Your task to perform on an android device: set default search engine in the chrome app Image 0: 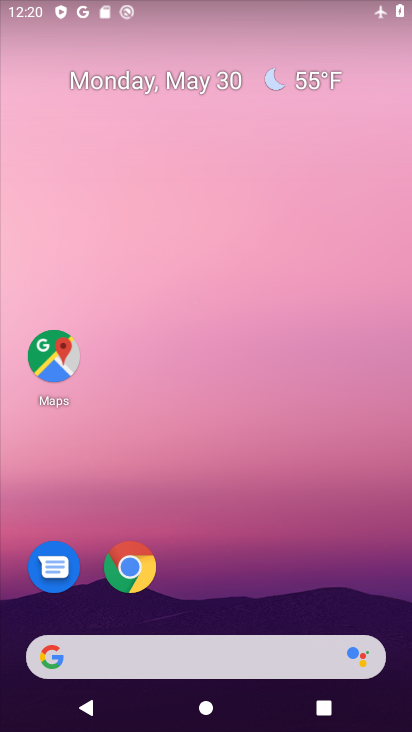
Step 0: press home button
Your task to perform on an android device: set default search engine in the chrome app Image 1: 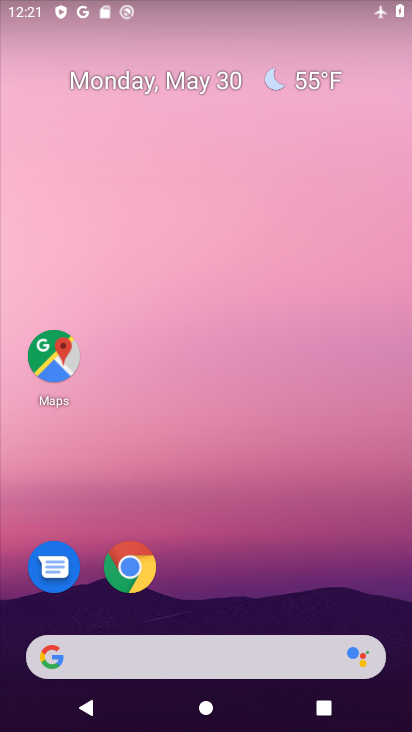
Step 1: click (124, 565)
Your task to perform on an android device: set default search engine in the chrome app Image 2: 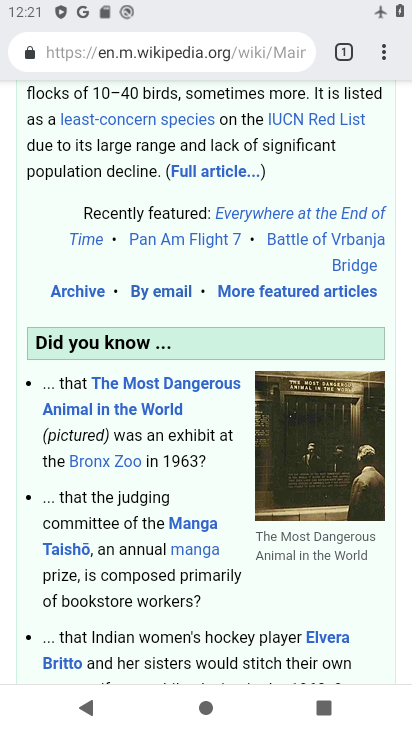
Step 2: click (382, 50)
Your task to perform on an android device: set default search engine in the chrome app Image 3: 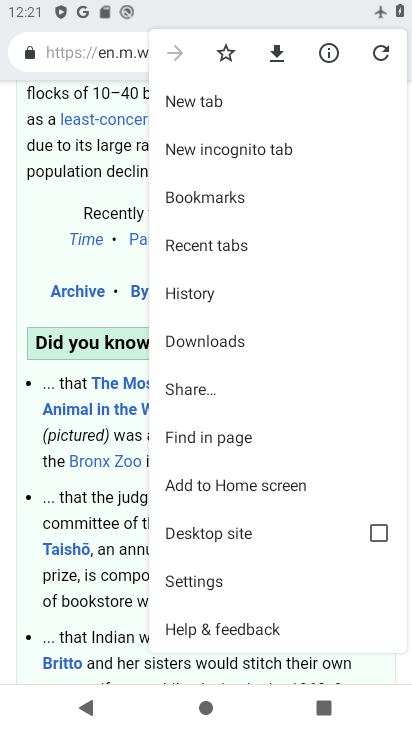
Step 3: click (238, 582)
Your task to perform on an android device: set default search engine in the chrome app Image 4: 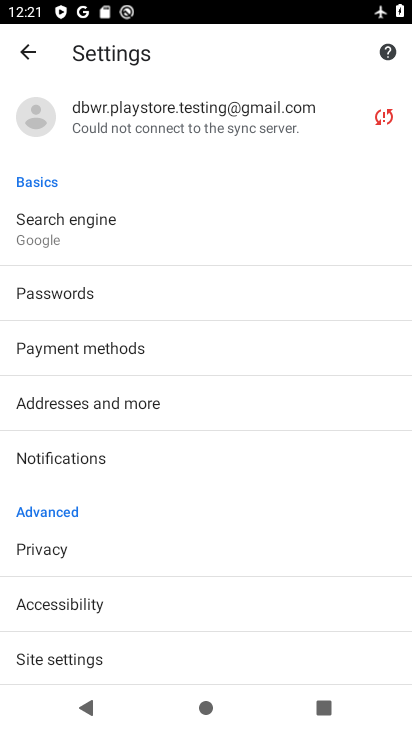
Step 4: click (137, 224)
Your task to perform on an android device: set default search engine in the chrome app Image 5: 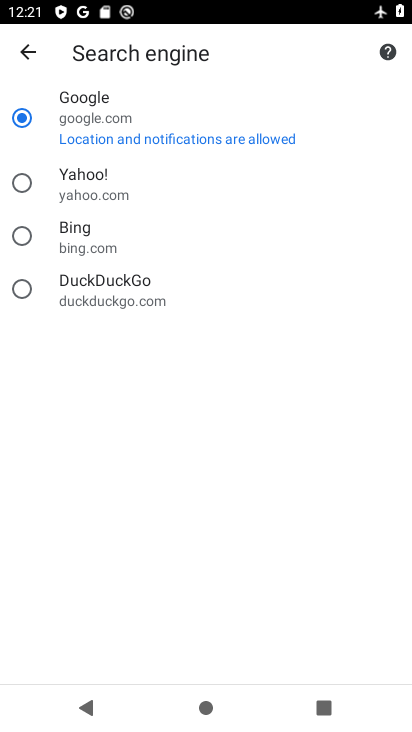
Step 5: click (23, 174)
Your task to perform on an android device: set default search engine in the chrome app Image 6: 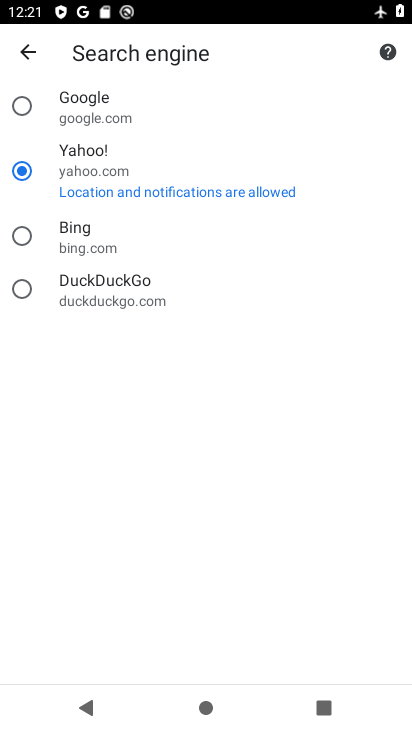
Step 6: task complete